Your task to perform on an android device: Is it going to rain today? Image 0: 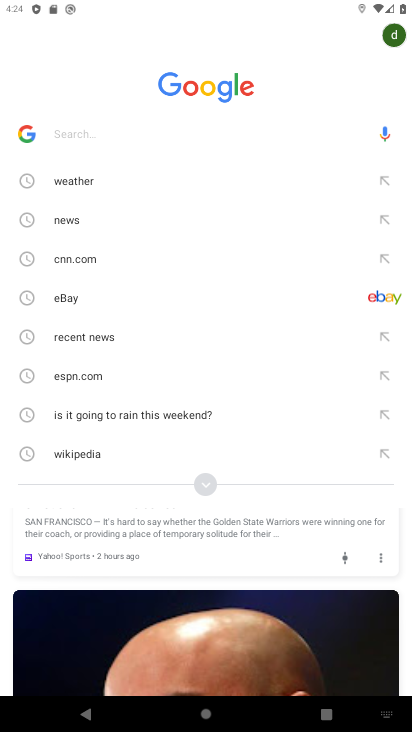
Step 0: click (90, 184)
Your task to perform on an android device: Is it going to rain today? Image 1: 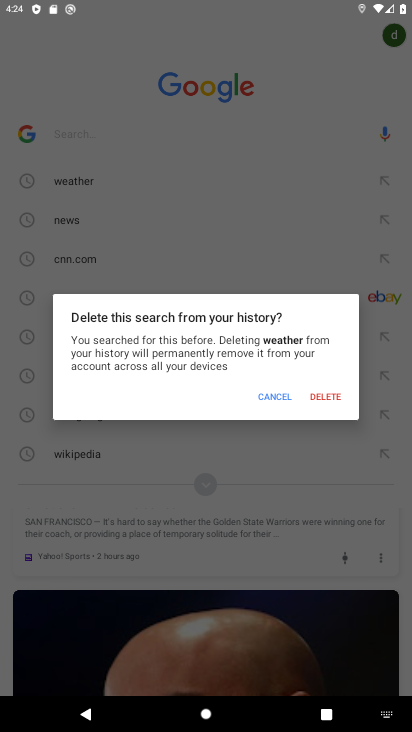
Step 1: click (272, 390)
Your task to perform on an android device: Is it going to rain today? Image 2: 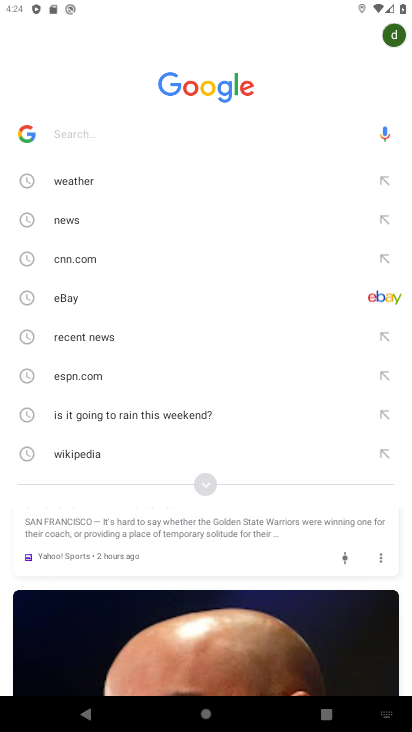
Step 2: click (89, 181)
Your task to perform on an android device: Is it going to rain today? Image 3: 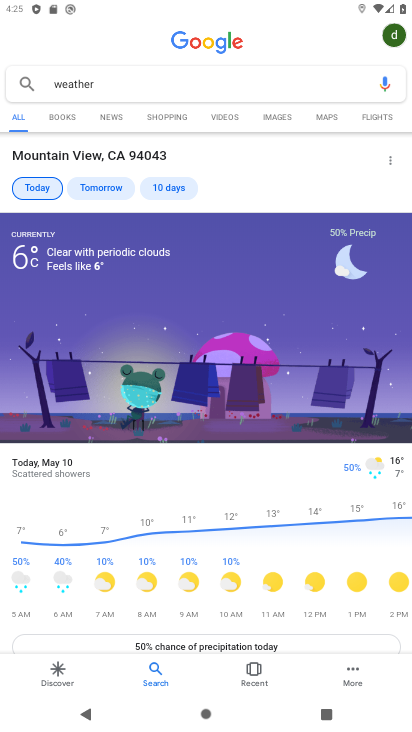
Step 3: task complete